Your task to perform on an android device: turn on improve location accuracy Image 0: 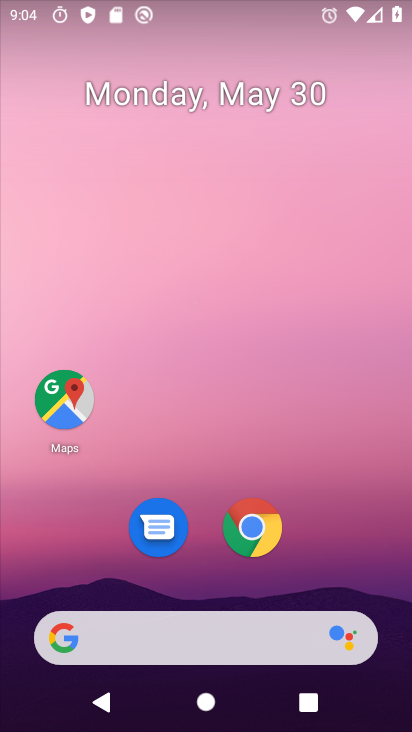
Step 0: drag from (121, 650) to (168, 10)
Your task to perform on an android device: turn on improve location accuracy Image 1: 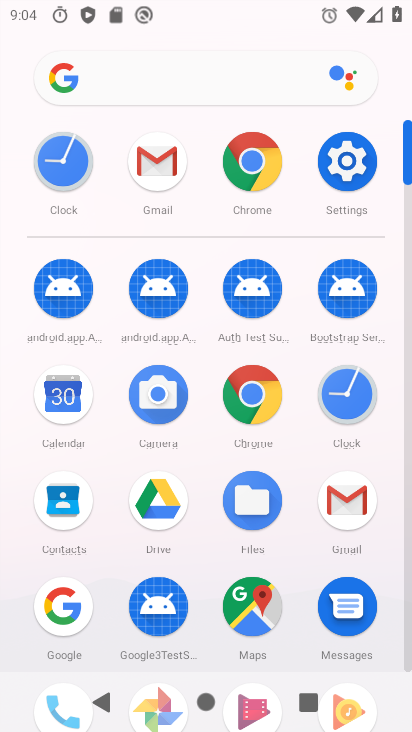
Step 1: click (331, 155)
Your task to perform on an android device: turn on improve location accuracy Image 2: 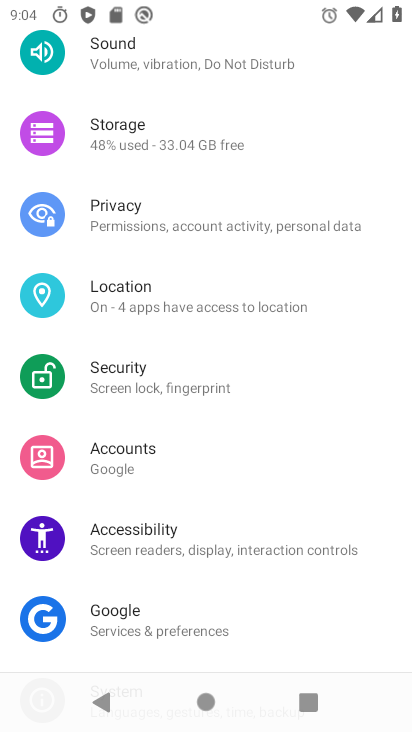
Step 2: click (163, 293)
Your task to perform on an android device: turn on improve location accuracy Image 3: 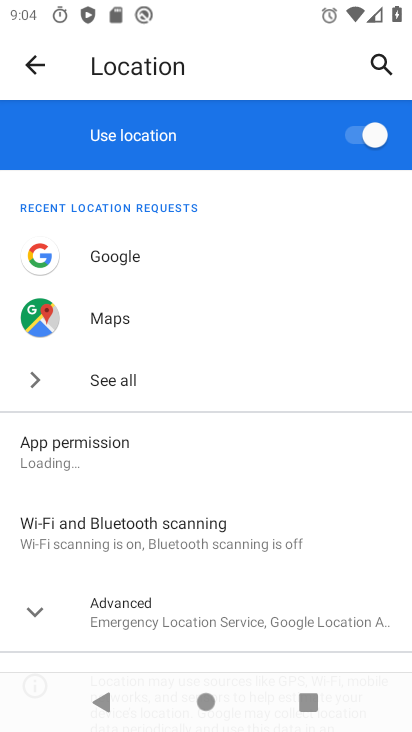
Step 3: click (214, 606)
Your task to perform on an android device: turn on improve location accuracy Image 4: 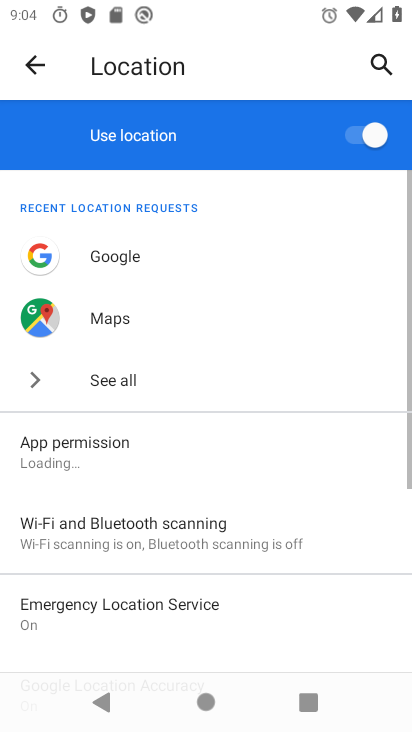
Step 4: drag from (217, 600) to (186, 158)
Your task to perform on an android device: turn on improve location accuracy Image 5: 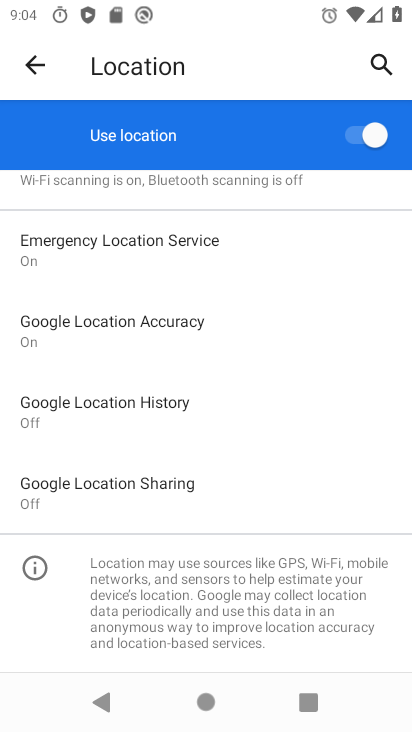
Step 5: click (179, 324)
Your task to perform on an android device: turn on improve location accuracy Image 6: 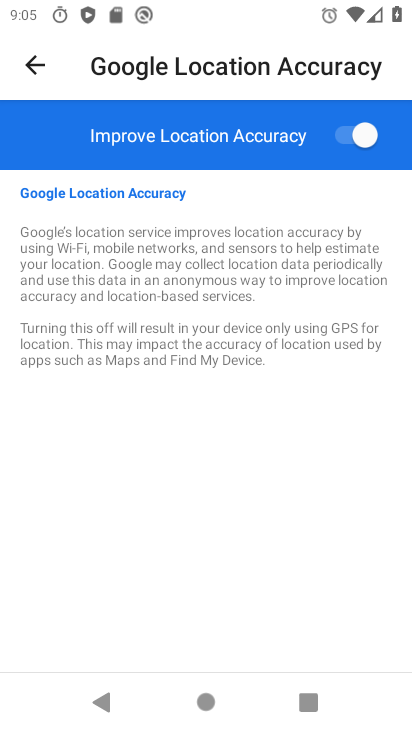
Step 6: task complete